Your task to perform on an android device: find which apps use the phone's location Image 0: 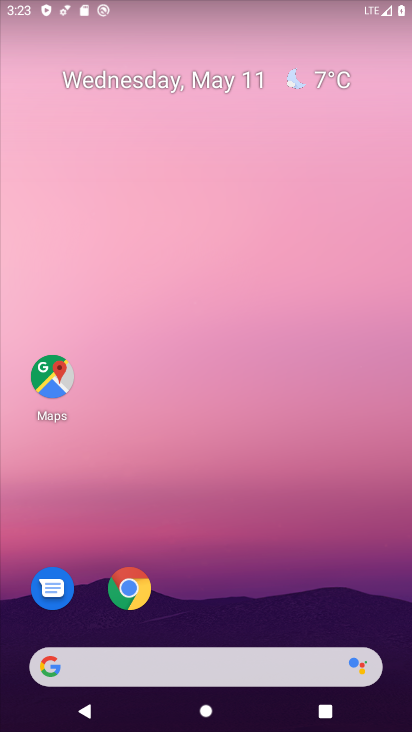
Step 0: drag from (228, 722) to (220, 345)
Your task to perform on an android device: find which apps use the phone's location Image 1: 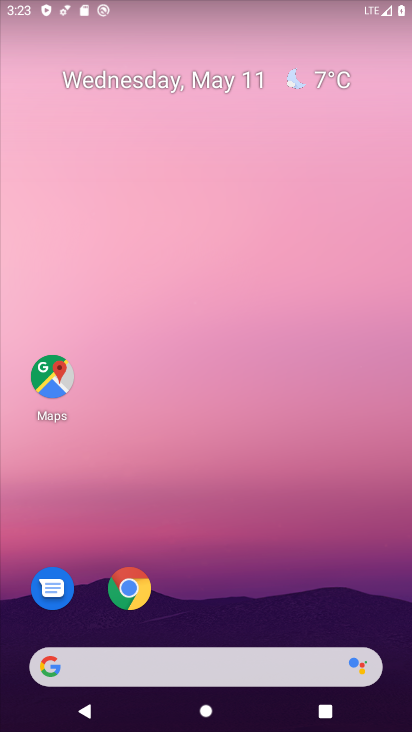
Step 1: drag from (225, 705) to (180, 109)
Your task to perform on an android device: find which apps use the phone's location Image 2: 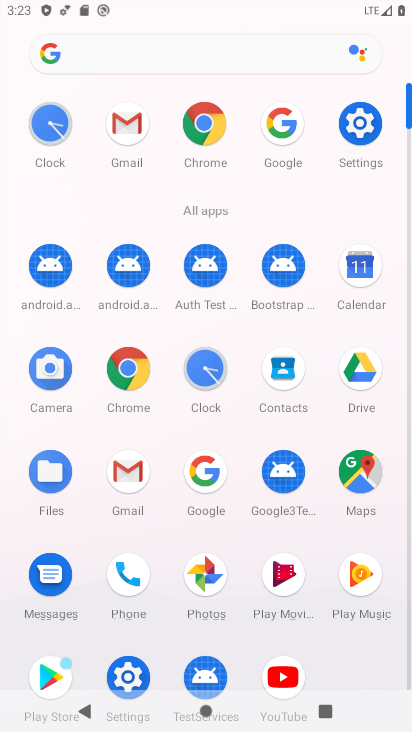
Step 2: click (371, 122)
Your task to perform on an android device: find which apps use the phone's location Image 3: 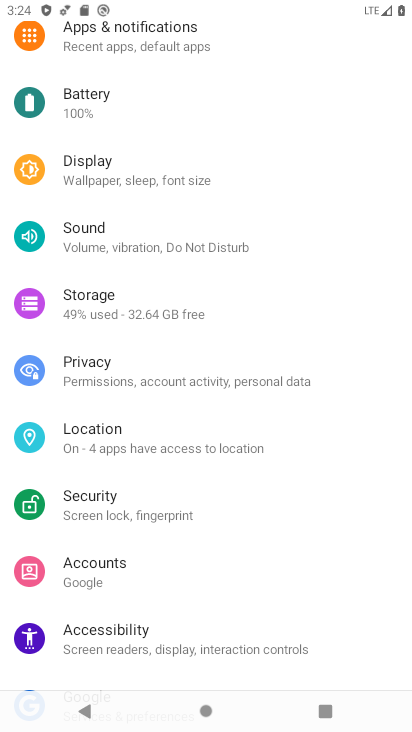
Step 3: click (85, 426)
Your task to perform on an android device: find which apps use the phone's location Image 4: 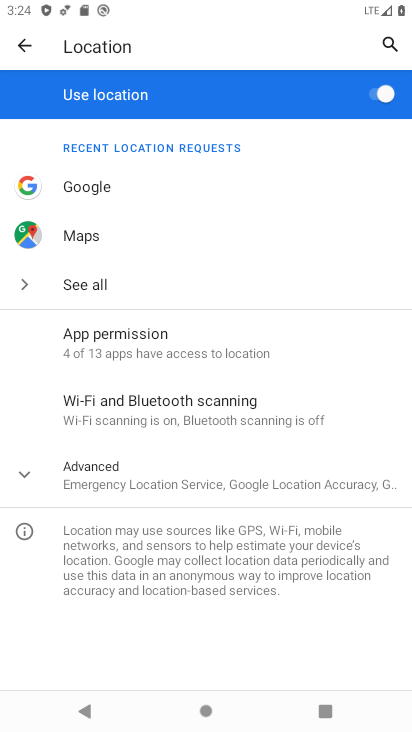
Step 4: click (113, 337)
Your task to perform on an android device: find which apps use the phone's location Image 5: 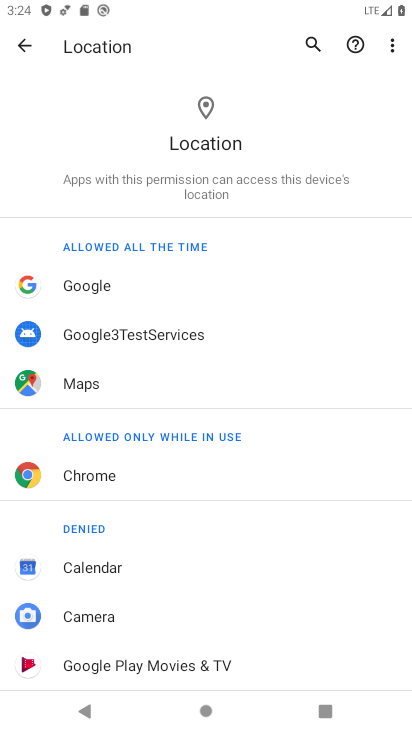
Step 5: task complete